Your task to perform on an android device: Open the Play Movies app and select the watchlist tab. Image 0: 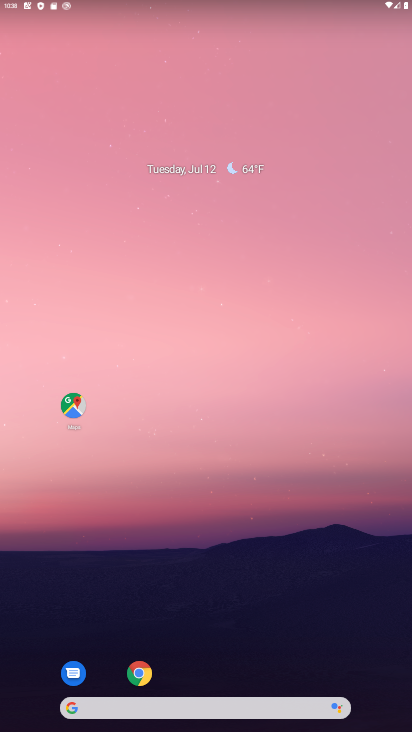
Step 0: drag from (289, 571) to (288, 129)
Your task to perform on an android device: Open the Play Movies app and select the watchlist tab. Image 1: 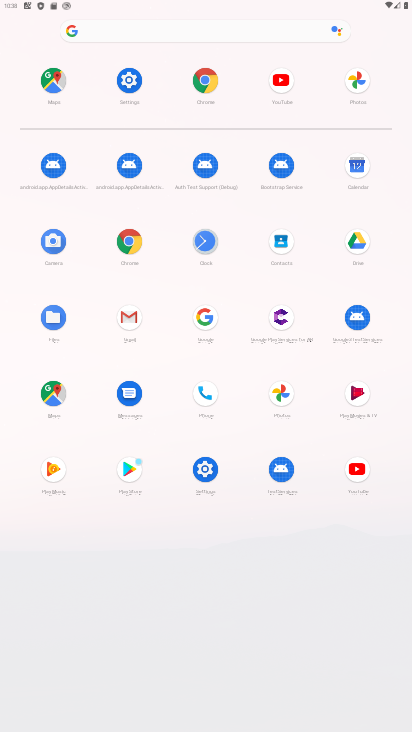
Step 1: click (360, 390)
Your task to perform on an android device: Open the Play Movies app and select the watchlist tab. Image 2: 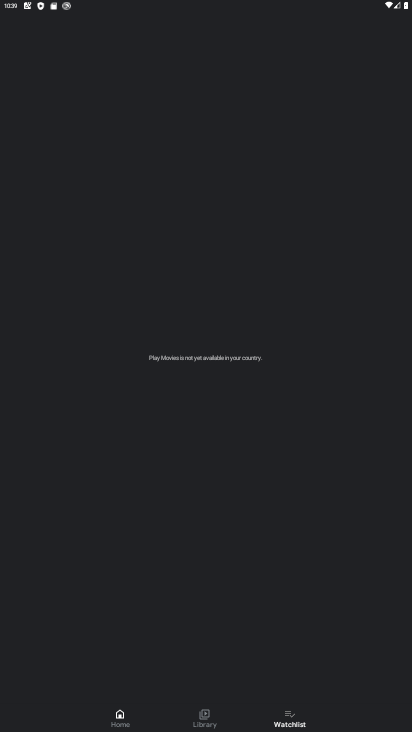
Step 2: click (295, 716)
Your task to perform on an android device: Open the Play Movies app and select the watchlist tab. Image 3: 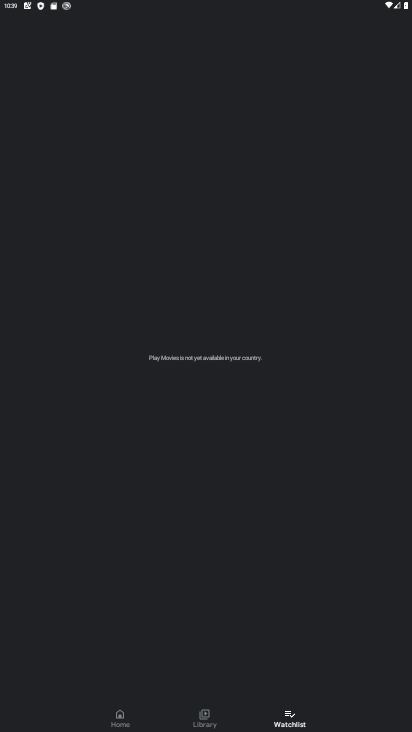
Step 3: task complete